Your task to perform on an android device: Open the Play Movies app and select the watchlist tab. Image 0: 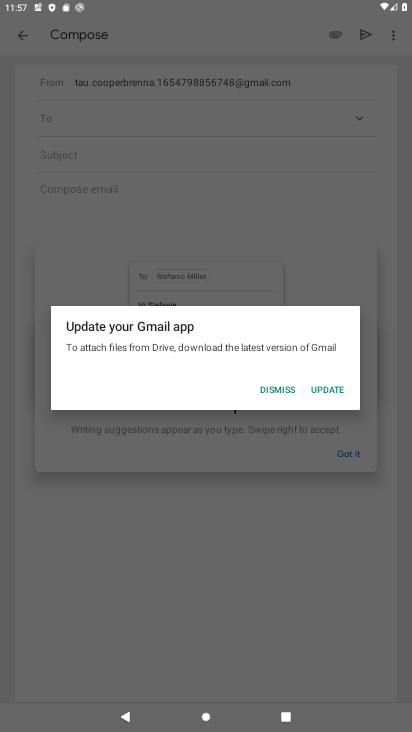
Step 0: press home button
Your task to perform on an android device: Open the Play Movies app and select the watchlist tab. Image 1: 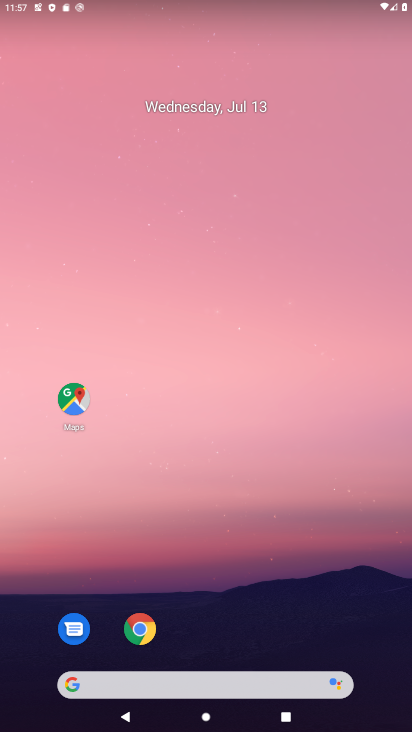
Step 1: drag from (214, 603) to (143, 140)
Your task to perform on an android device: Open the Play Movies app and select the watchlist tab. Image 2: 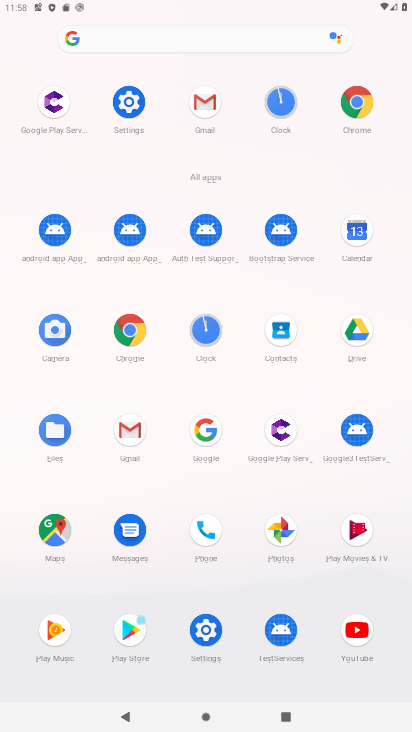
Step 2: click (361, 537)
Your task to perform on an android device: Open the Play Movies app and select the watchlist tab. Image 3: 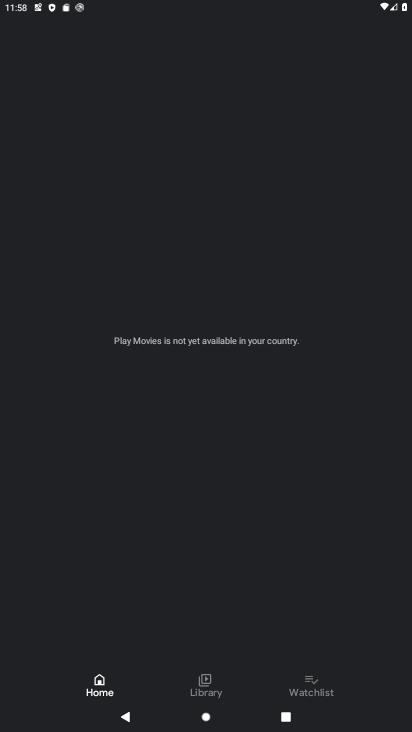
Step 3: click (310, 685)
Your task to perform on an android device: Open the Play Movies app and select the watchlist tab. Image 4: 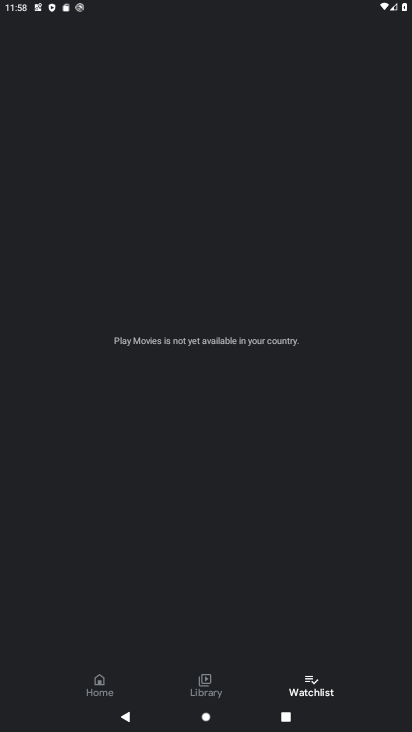
Step 4: task complete